Your task to perform on an android device: turn on location history Image 0: 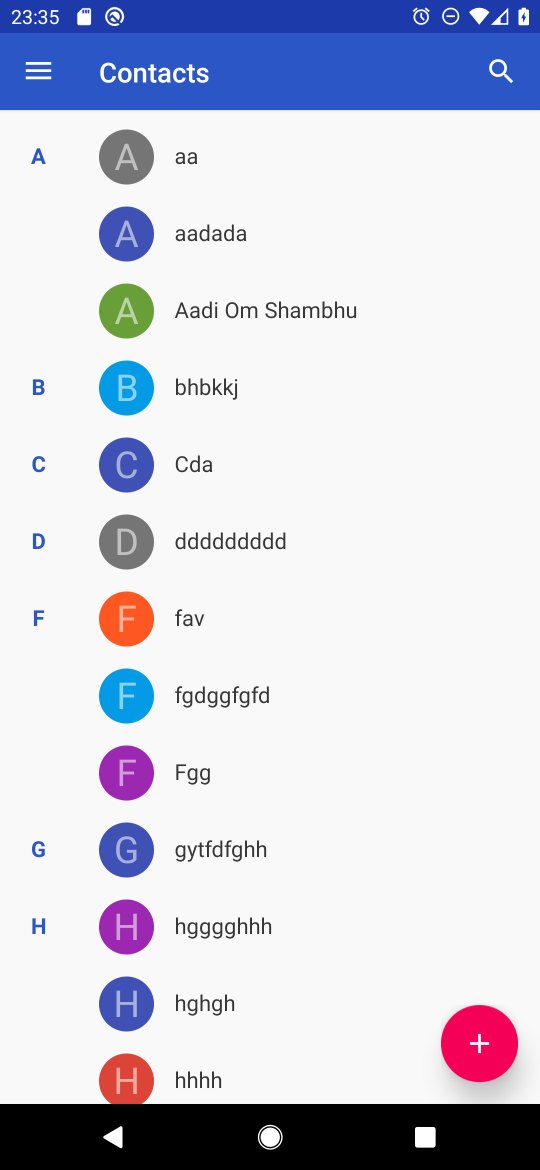
Step 0: press home button
Your task to perform on an android device: turn on location history Image 1: 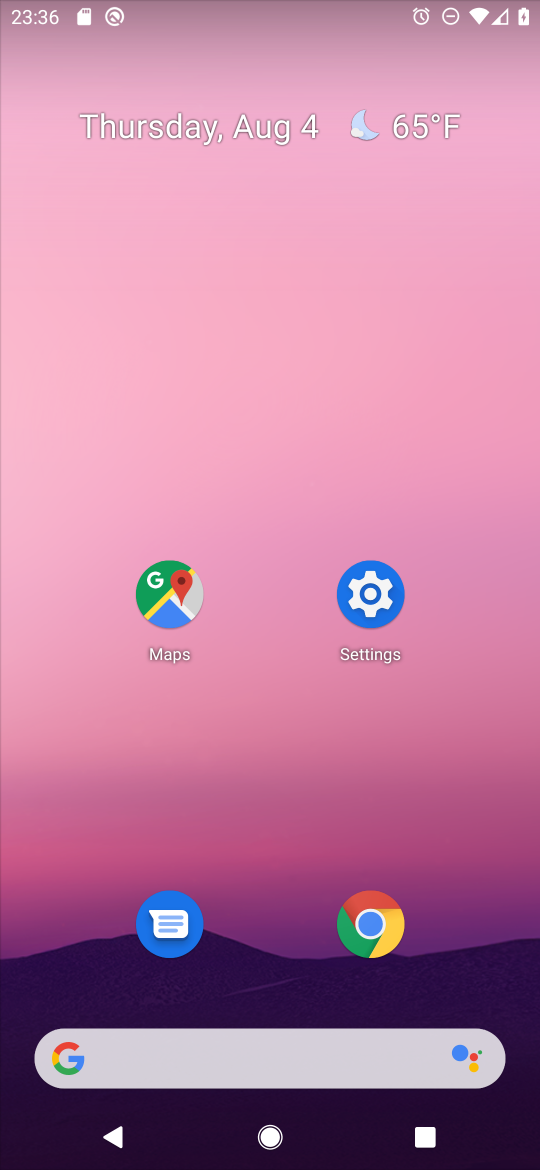
Step 1: click (164, 586)
Your task to perform on an android device: turn on location history Image 2: 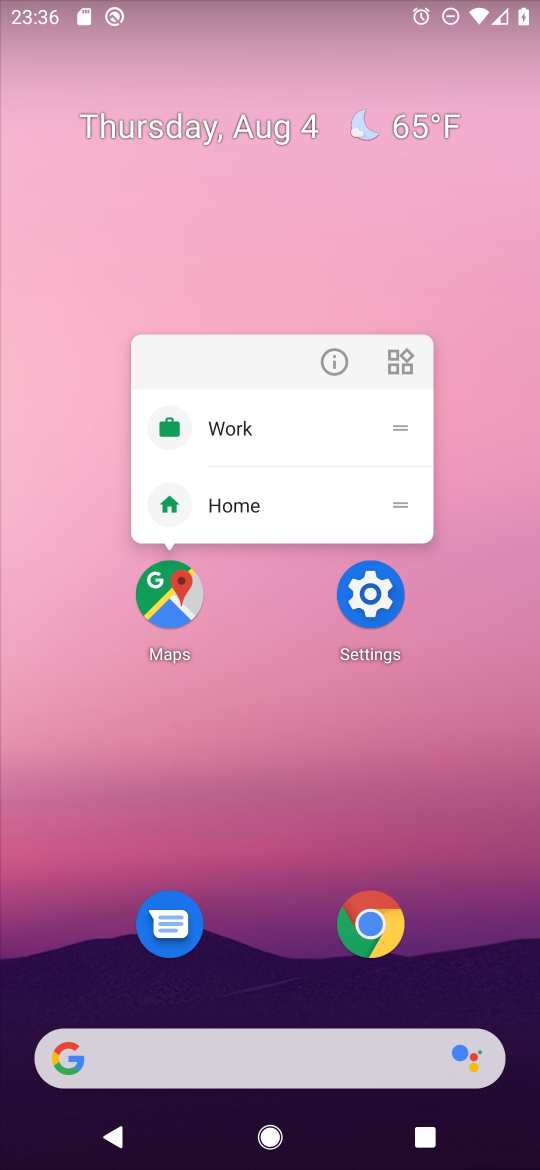
Step 2: click (164, 588)
Your task to perform on an android device: turn on location history Image 3: 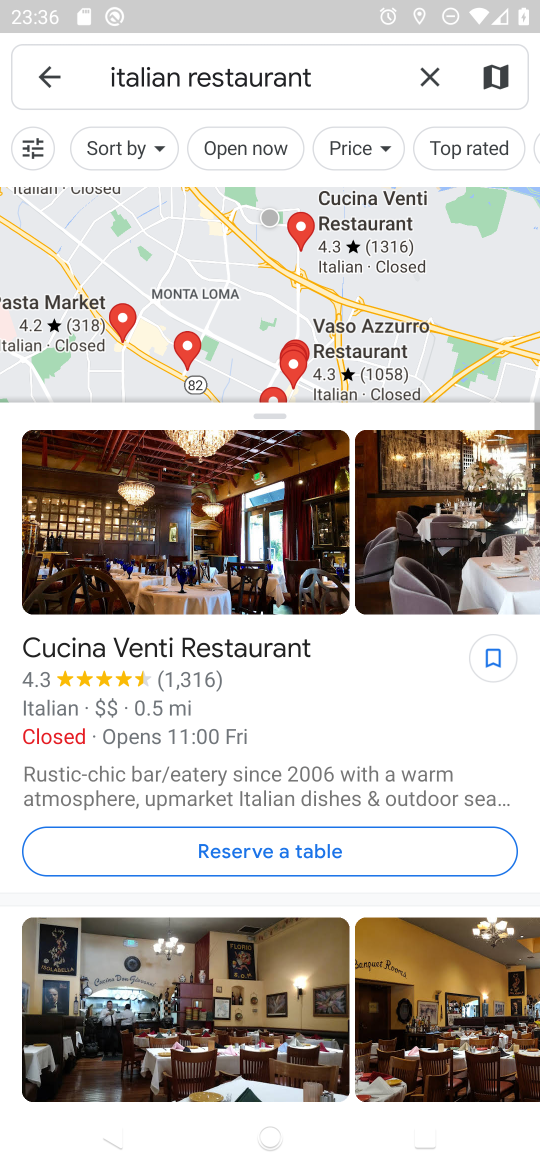
Step 3: click (53, 83)
Your task to perform on an android device: turn on location history Image 4: 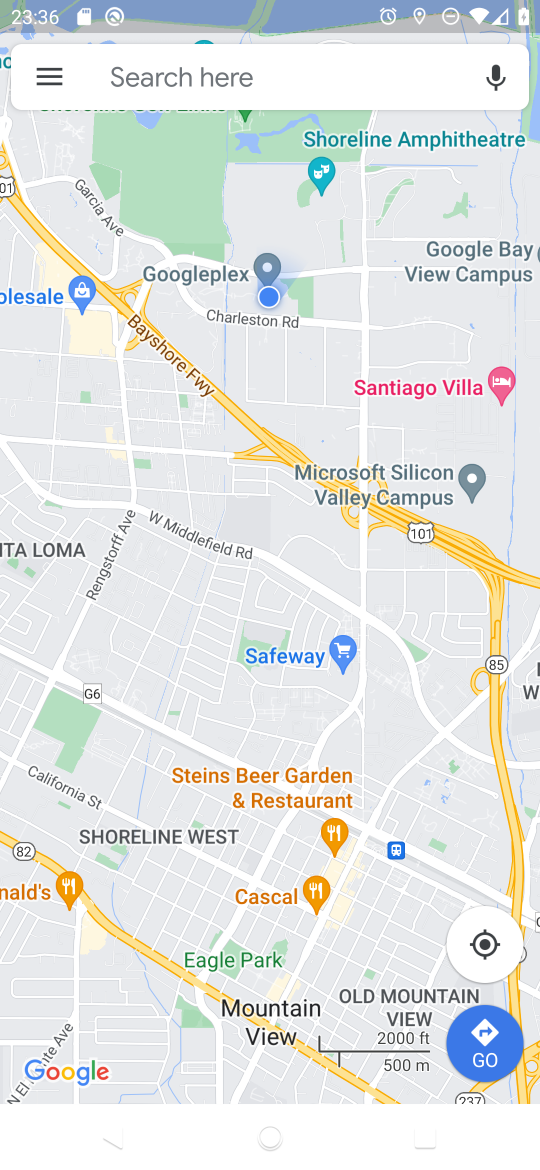
Step 4: click (53, 82)
Your task to perform on an android device: turn on location history Image 5: 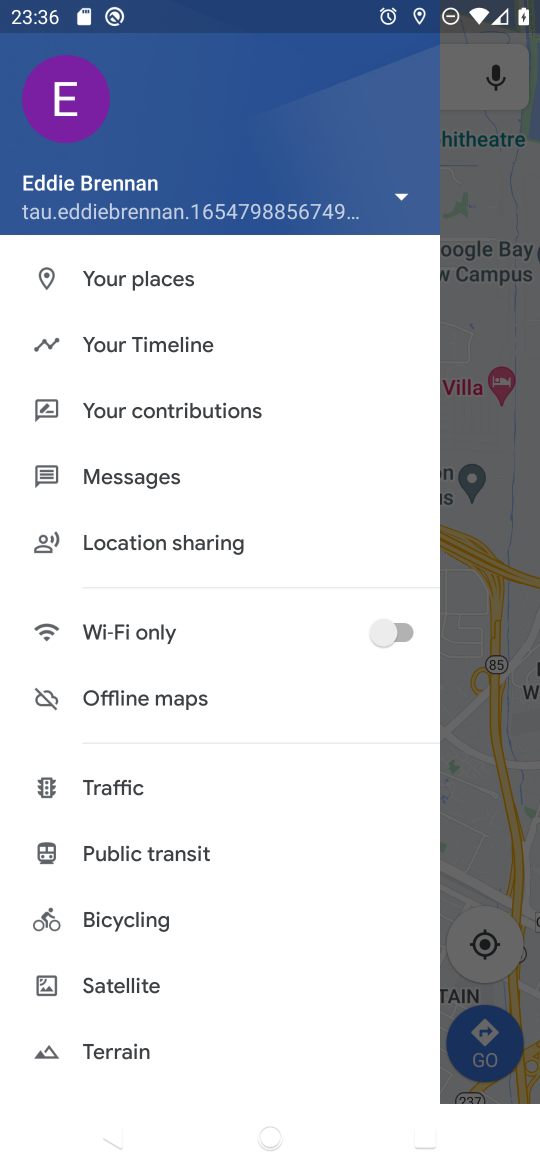
Step 5: drag from (213, 885) to (206, 1038)
Your task to perform on an android device: turn on location history Image 6: 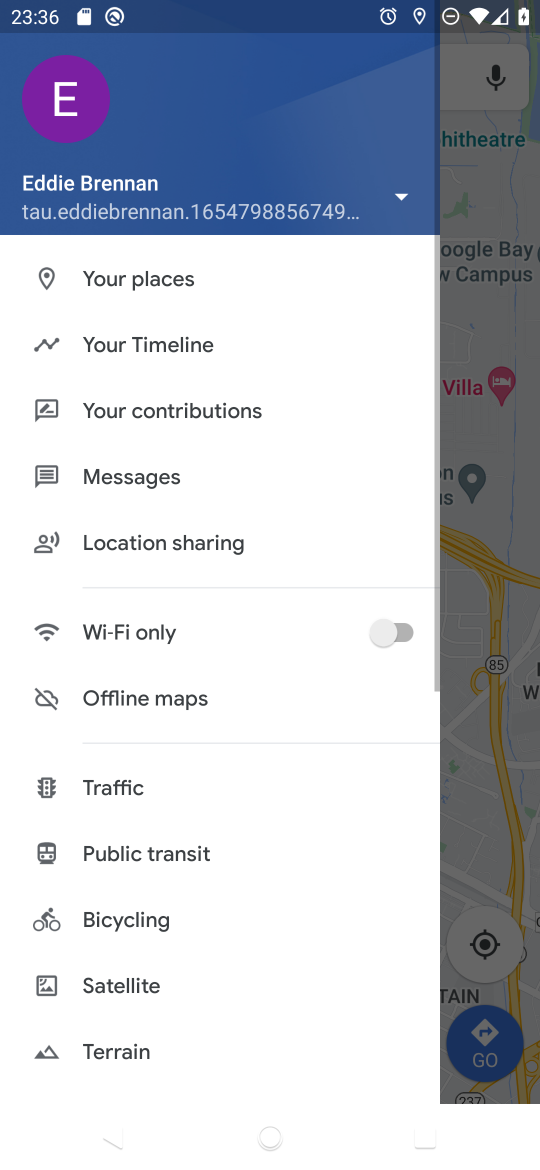
Step 6: click (163, 338)
Your task to perform on an android device: turn on location history Image 7: 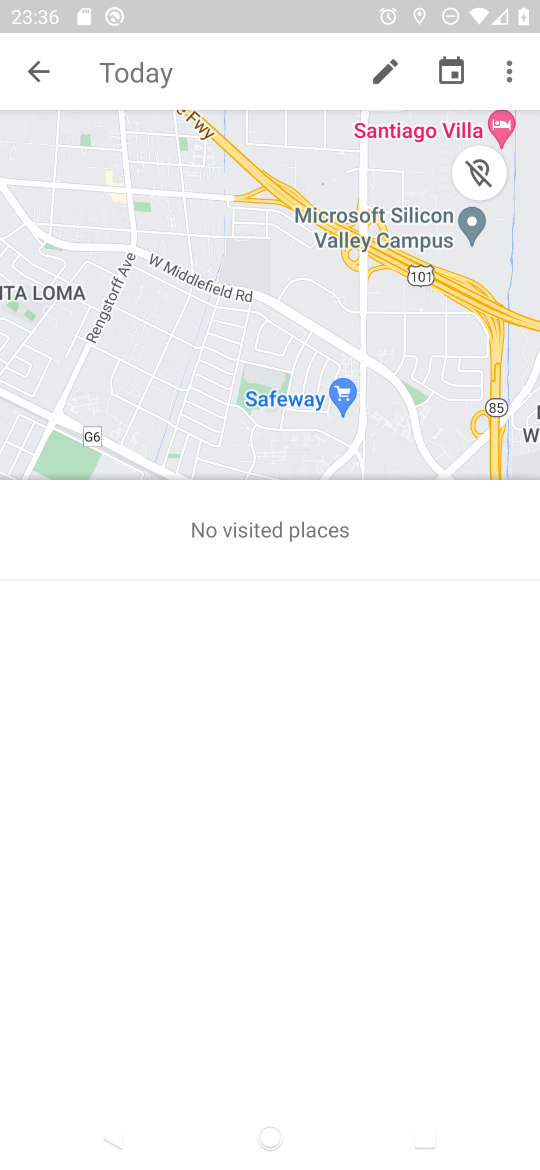
Step 7: click (510, 69)
Your task to perform on an android device: turn on location history Image 8: 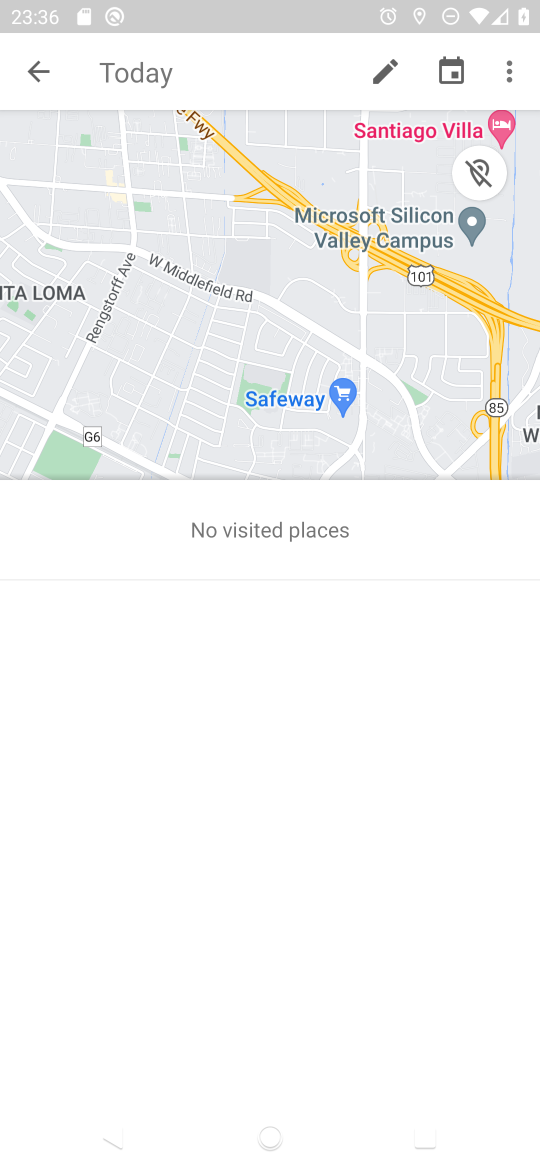
Step 8: click (509, 62)
Your task to perform on an android device: turn on location history Image 9: 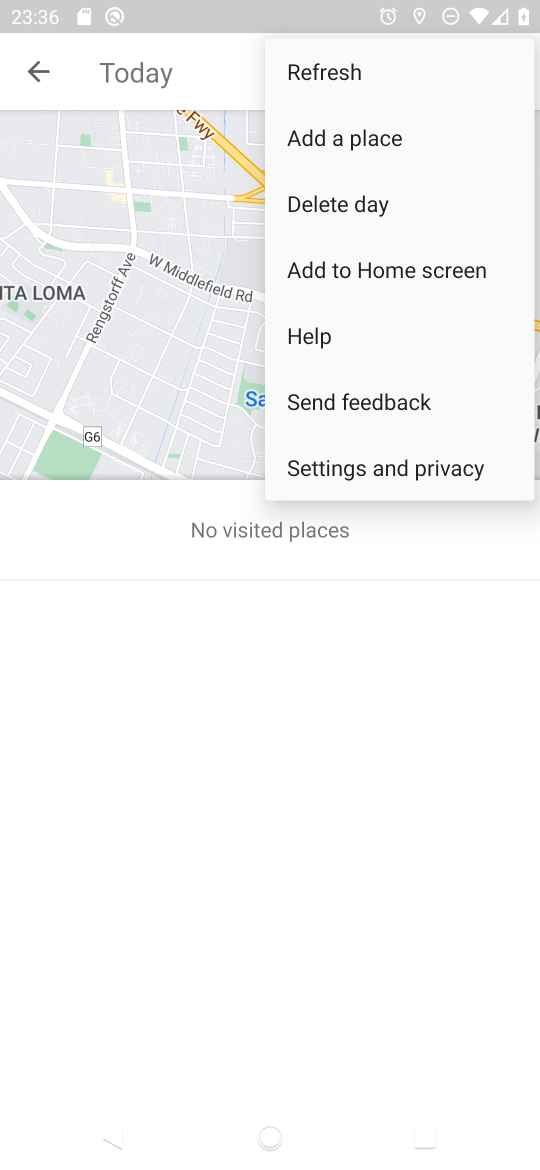
Step 9: click (343, 469)
Your task to perform on an android device: turn on location history Image 10: 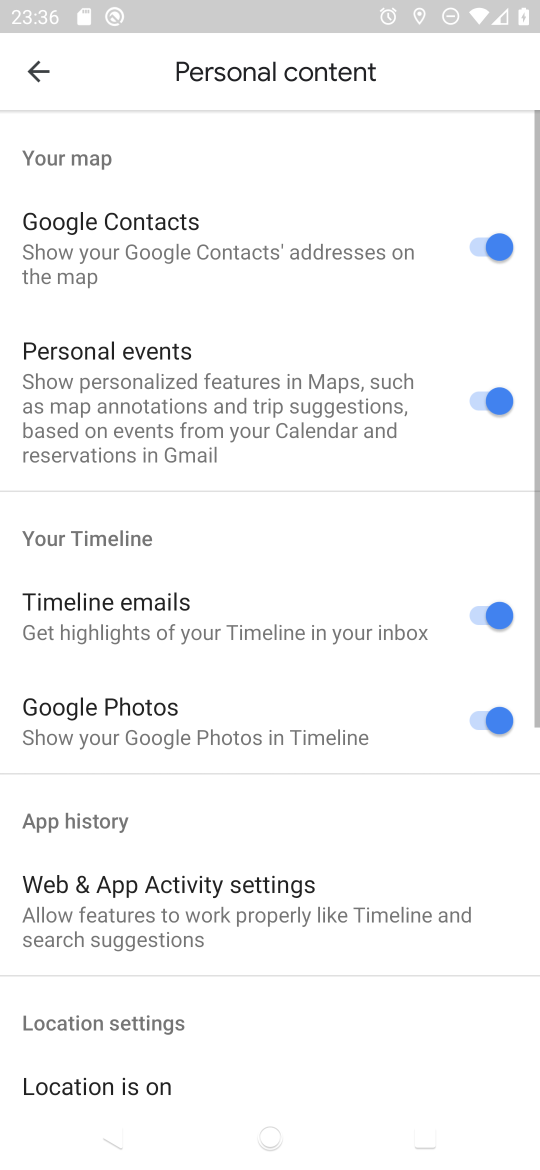
Step 10: drag from (284, 807) to (471, 201)
Your task to perform on an android device: turn on location history Image 11: 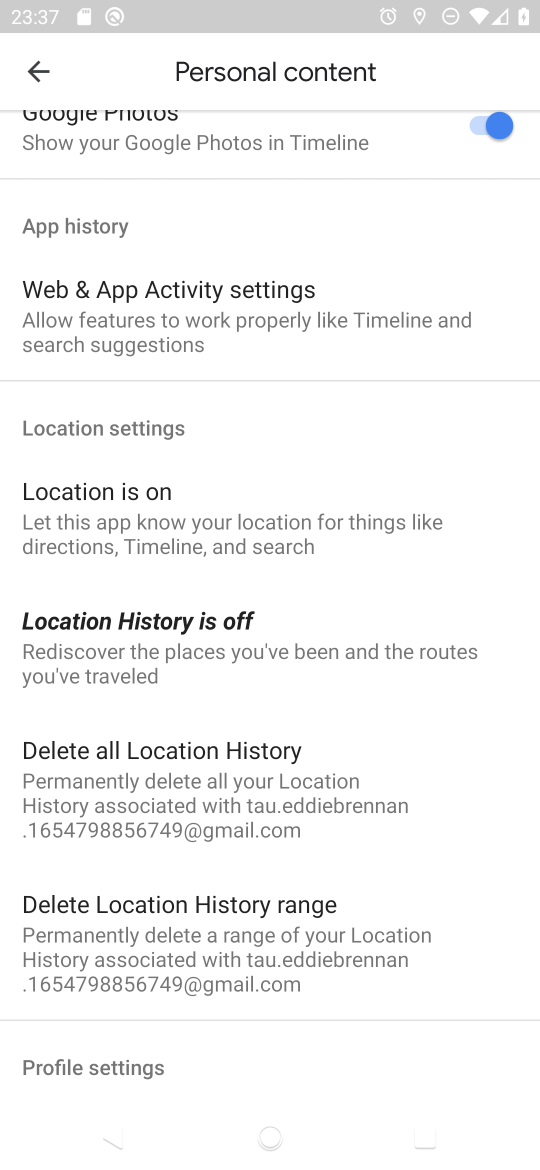
Step 11: click (194, 654)
Your task to perform on an android device: turn on location history Image 12: 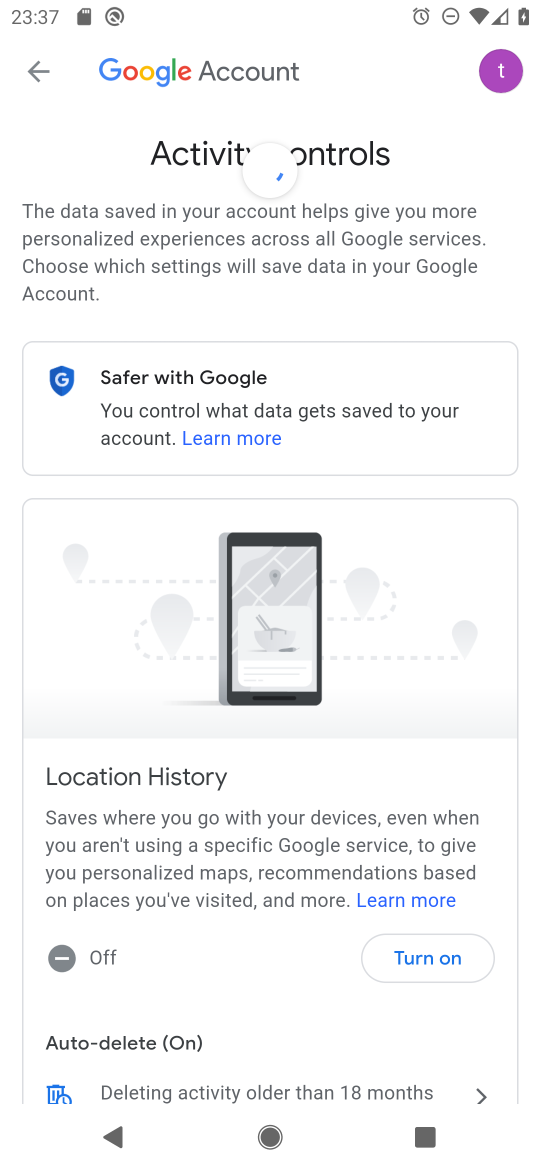
Step 12: click (448, 950)
Your task to perform on an android device: turn on location history Image 13: 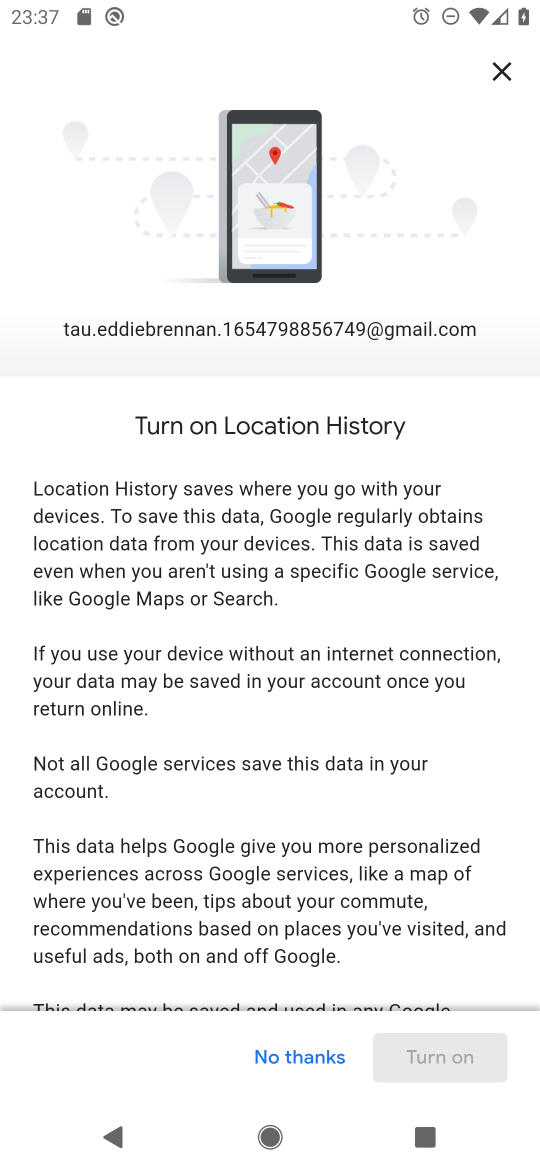
Step 13: drag from (372, 955) to (539, 163)
Your task to perform on an android device: turn on location history Image 14: 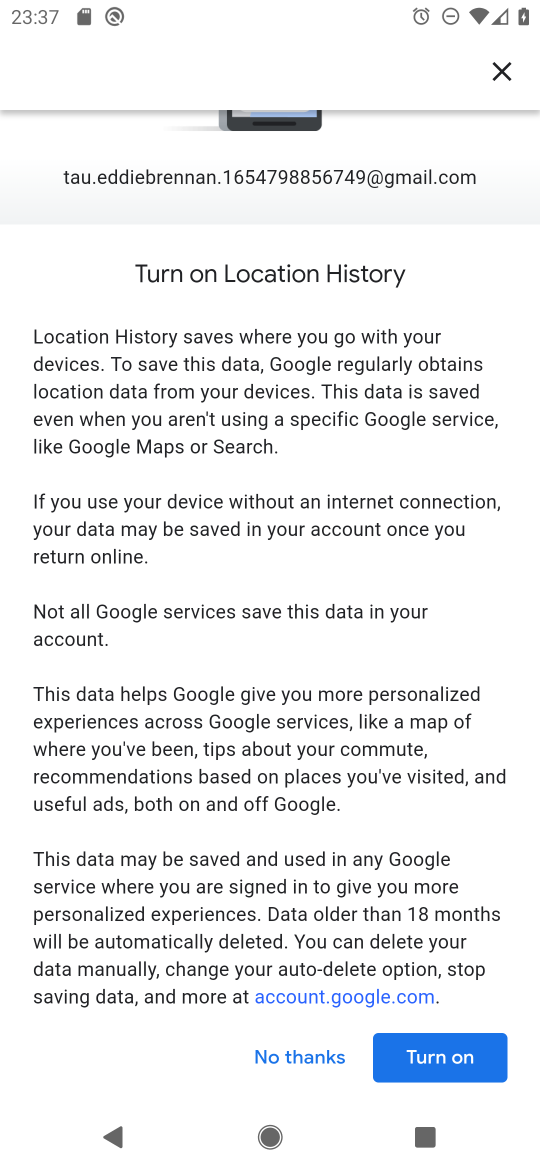
Step 14: click (445, 1058)
Your task to perform on an android device: turn on location history Image 15: 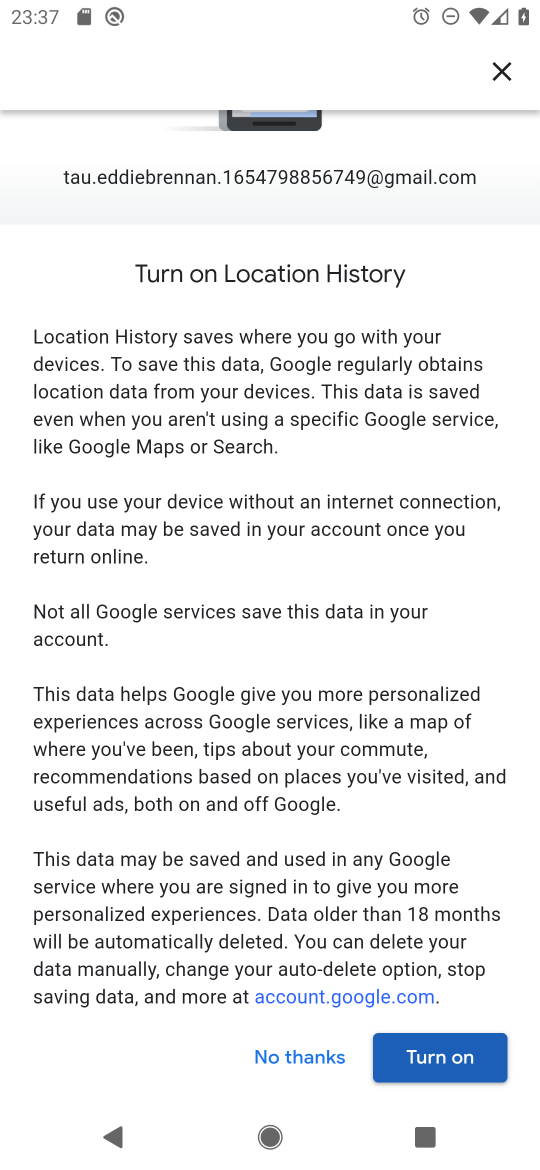
Step 15: click (438, 1063)
Your task to perform on an android device: turn on location history Image 16: 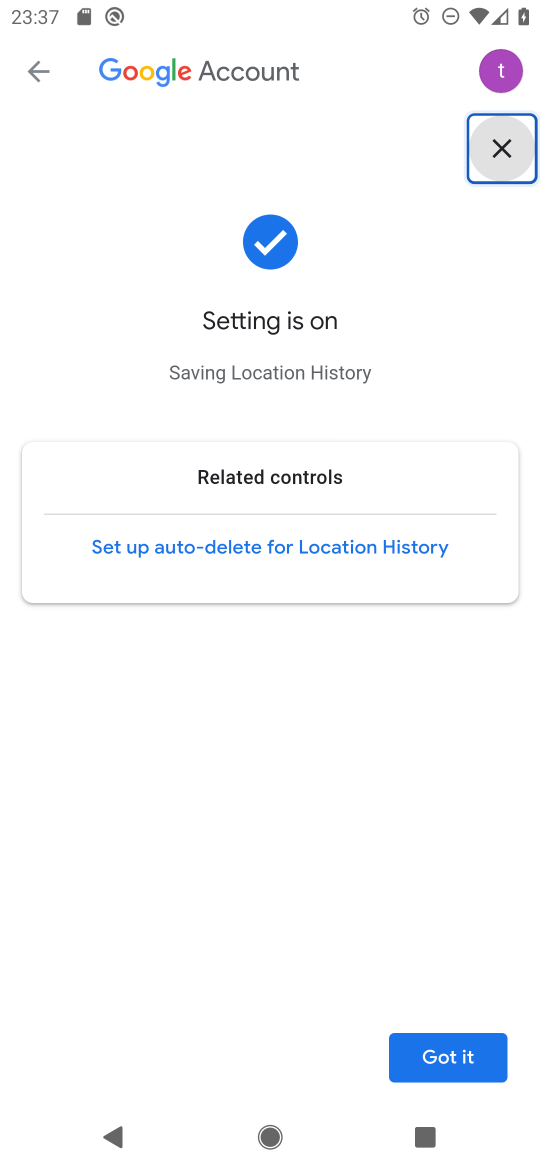
Step 16: click (437, 1056)
Your task to perform on an android device: turn on location history Image 17: 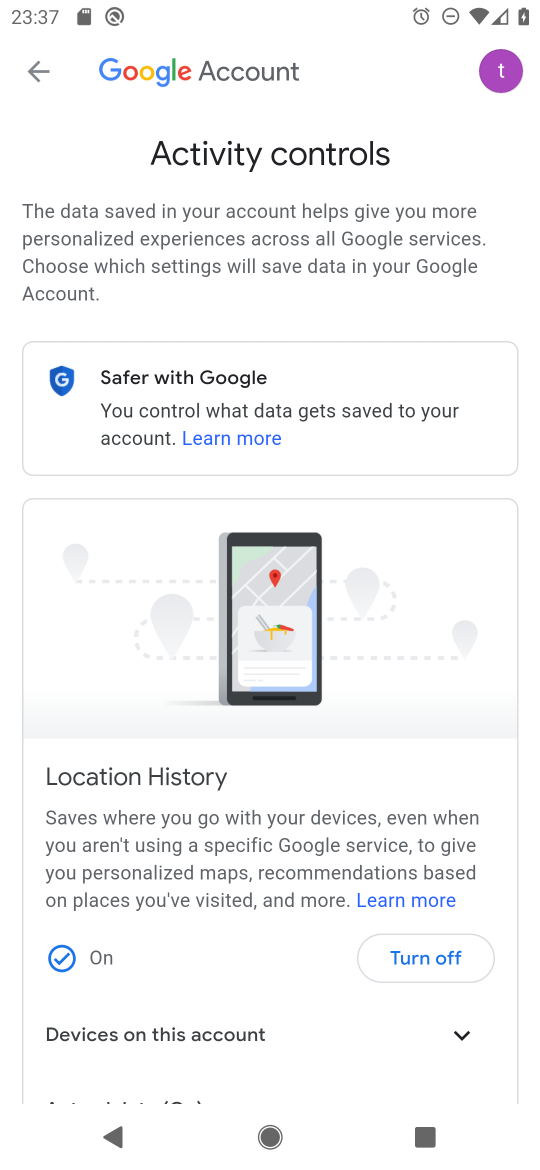
Step 17: task complete